Your task to perform on an android device: toggle data saver in the chrome app Image 0: 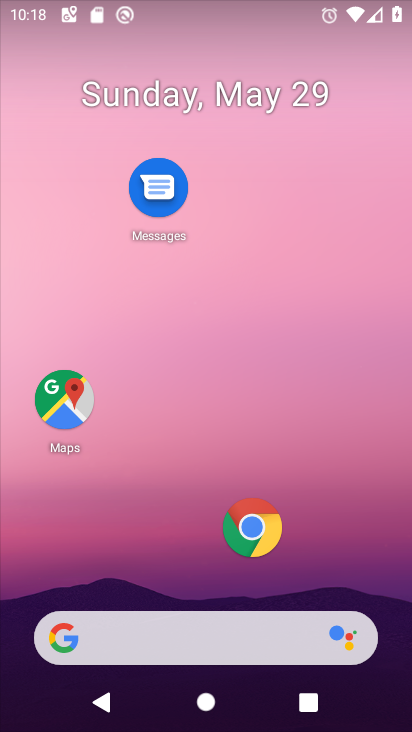
Step 0: click (252, 521)
Your task to perform on an android device: toggle data saver in the chrome app Image 1: 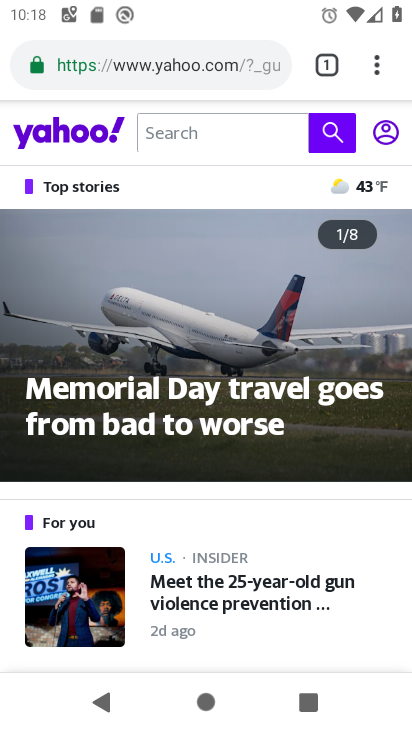
Step 1: click (378, 58)
Your task to perform on an android device: toggle data saver in the chrome app Image 2: 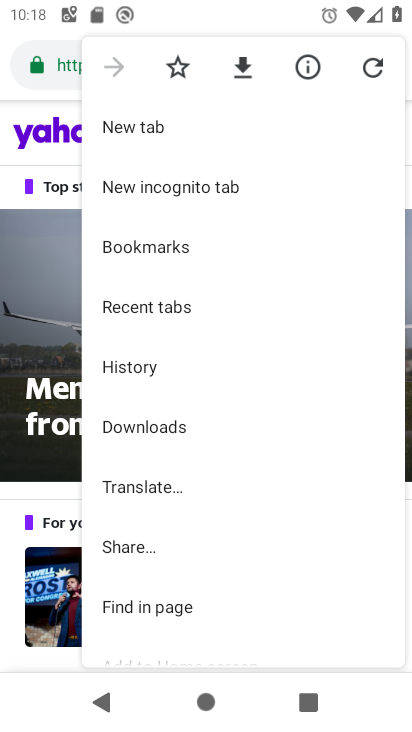
Step 2: drag from (199, 616) to (192, 124)
Your task to perform on an android device: toggle data saver in the chrome app Image 3: 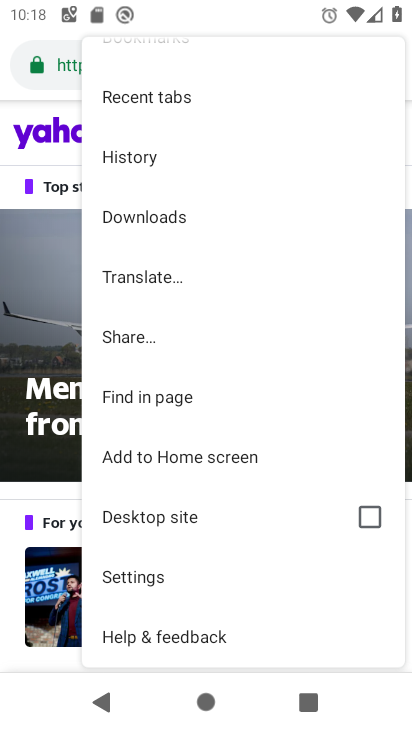
Step 3: click (178, 557)
Your task to perform on an android device: toggle data saver in the chrome app Image 4: 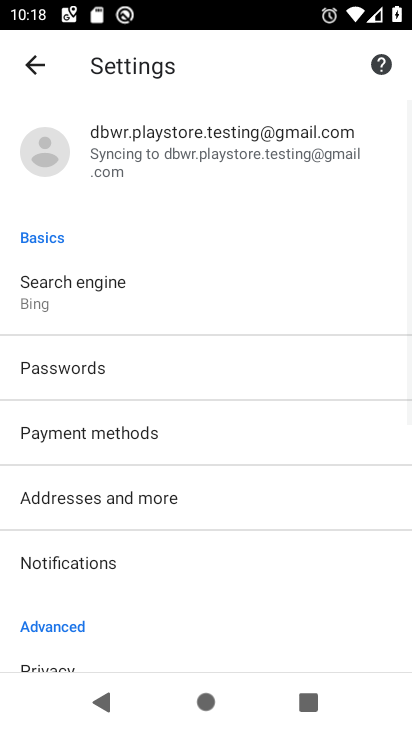
Step 4: drag from (173, 631) to (187, 148)
Your task to perform on an android device: toggle data saver in the chrome app Image 5: 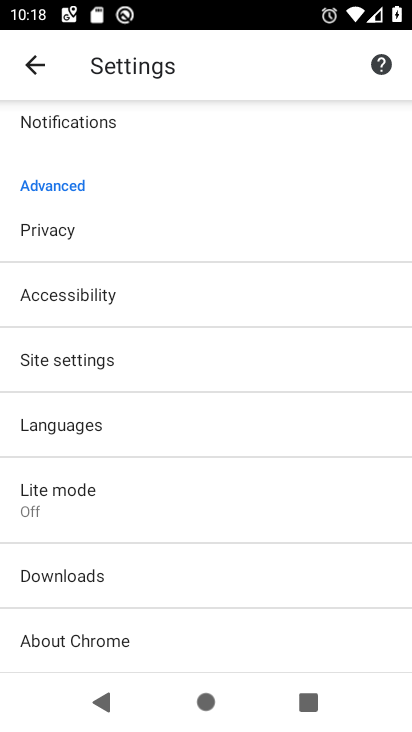
Step 5: click (82, 503)
Your task to perform on an android device: toggle data saver in the chrome app Image 6: 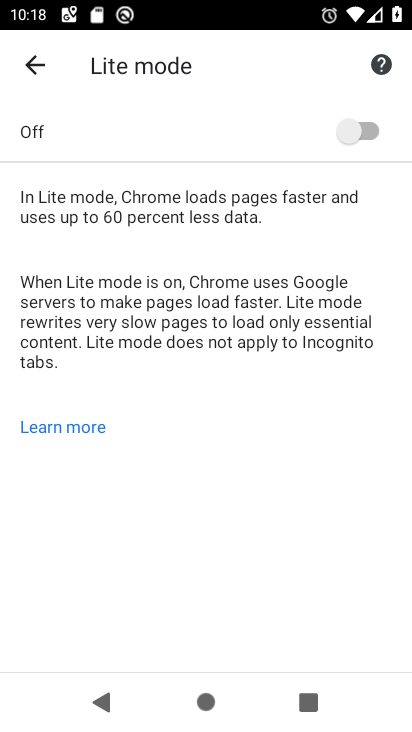
Step 6: click (358, 133)
Your task to perform on an android device: toggle data saver in the chrome app Image 7: 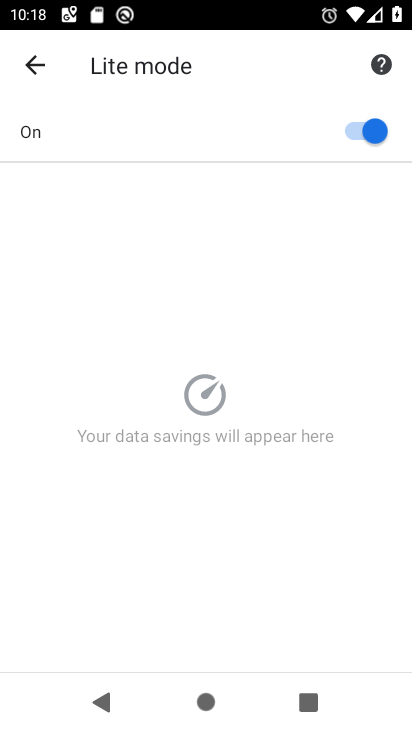
Step 7: task complete